Your task to perform on an android device: allow cookies in the chrome app Image 0: 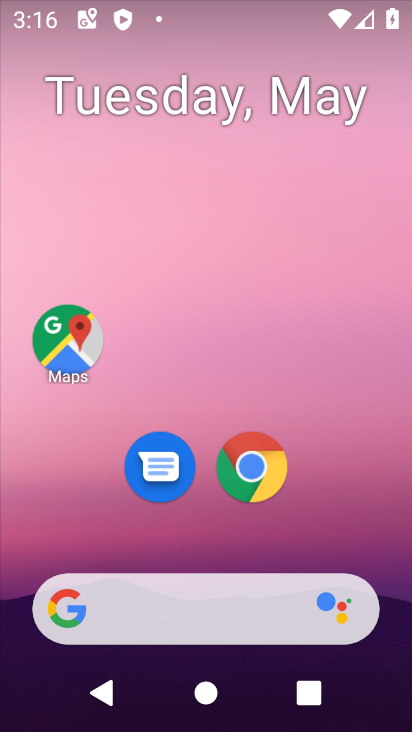
Step 0: click (252, 485)
Your task to perform on an android device: allow cookies in the chrome app Image 1: 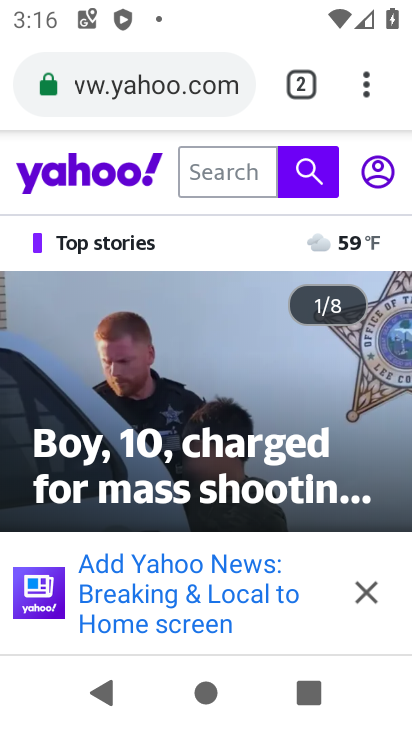
Step 1: click (368, 74)
Your task to perform on an android device: allow cookies in the chrome app Image 2: 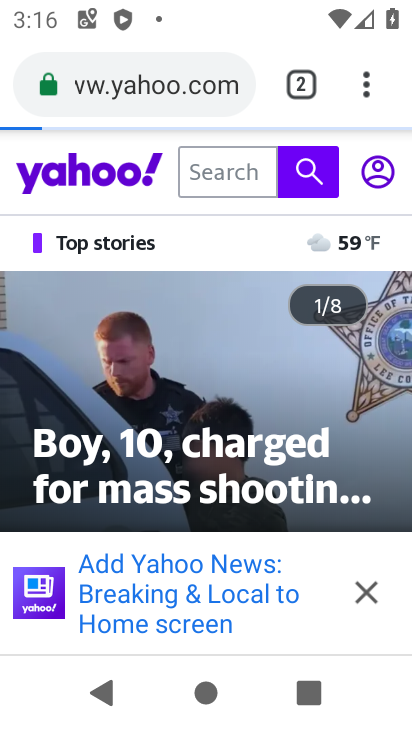
Step 2: drag from (368, 74) to (273, 526)
Your task to perform on an android device: allow cookies in the chrome app Image 3: 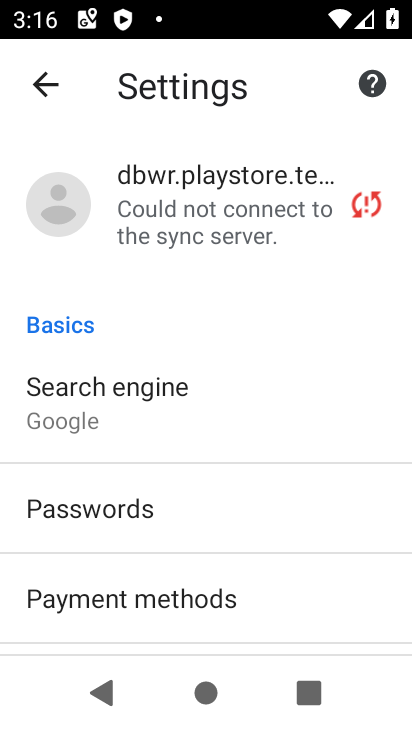
Step 3: drag from (354, 612) to (313, 67)
Your task to perform on an android device: allow cookies in the chrome app Image 4: 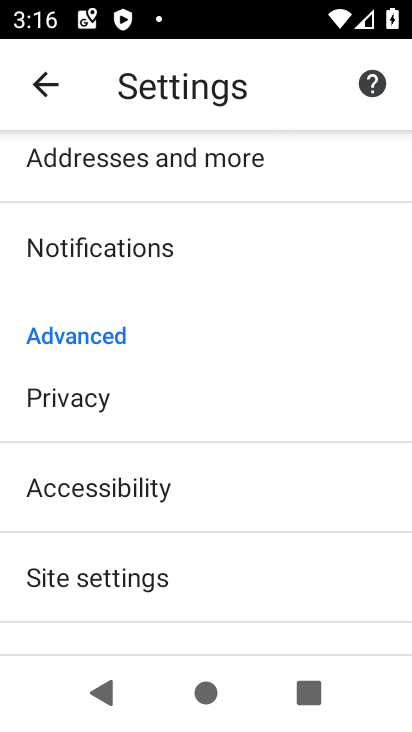
Step 4: click (156, 573)
Your task to perform on an android device: allow cookies in the chrome app Image 5: 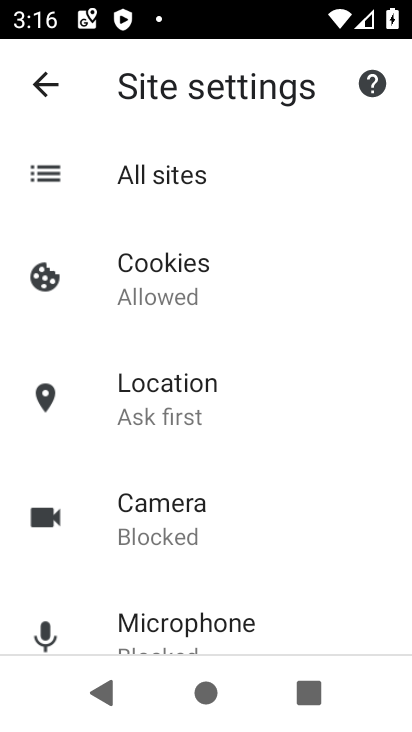
Step 5: click (172, 285)
Your task to perform on an android device: allow cookies in the chrome app Image 6: 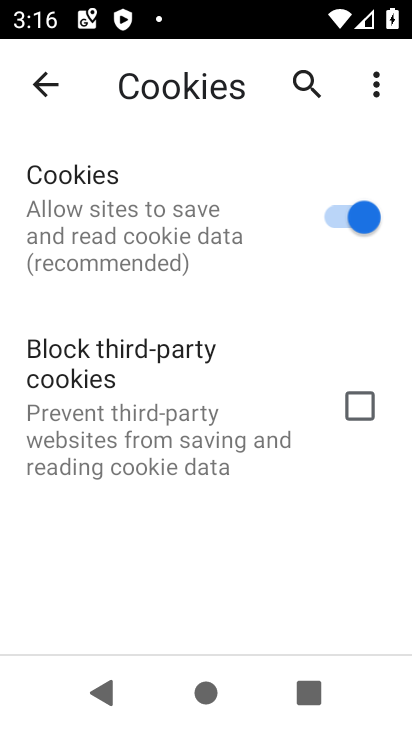
Step 6: task complete